Your task to perform on an android device: turn off notifications settings in the gmail app Image 0: 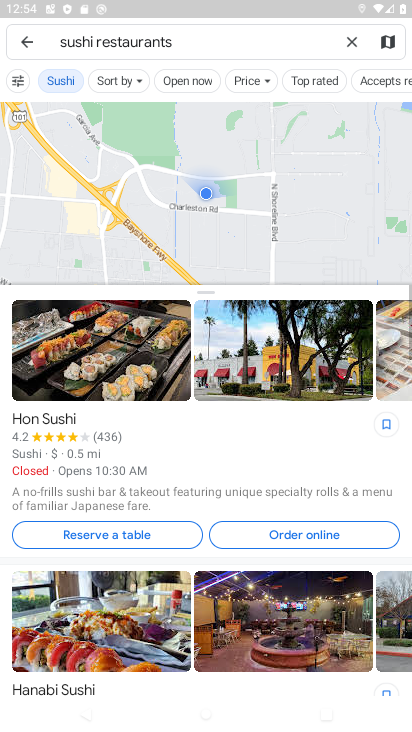
Step 0: press home button
Your task to perform on an android device: turn off notifications settings in the gmail app Image 1: 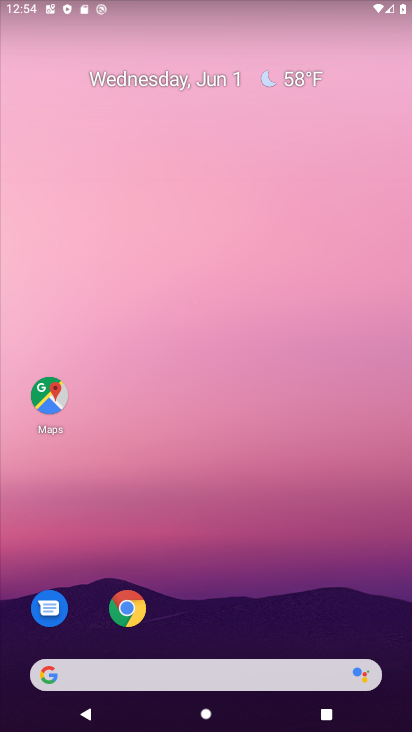
Step 1: drag from (262, 587) to (269, 112)
Your task to perform on an android device: turn off notifications settings in the gmail app Image 2: 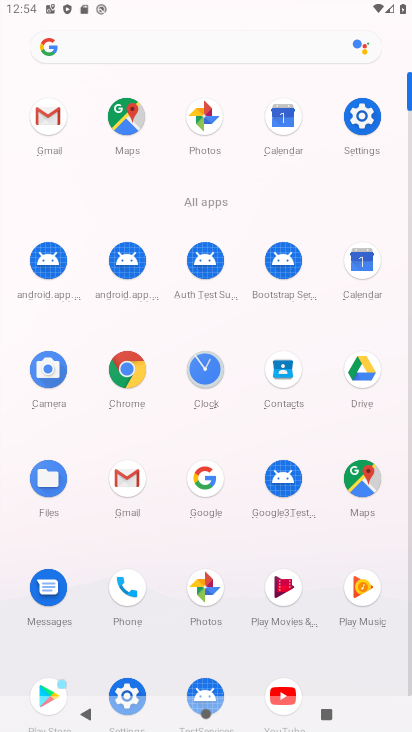
Step 2: click (50, 119)
Your task to perform on an android device: turn off notifications settings in the gmail app Image 3: 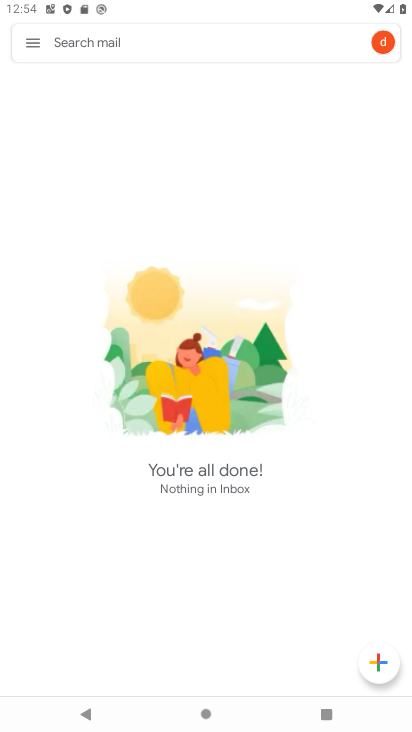
Step 3: click (29, 42)
Your task to perform on an android device: turn off notifications settings in the gmail app Image 4: 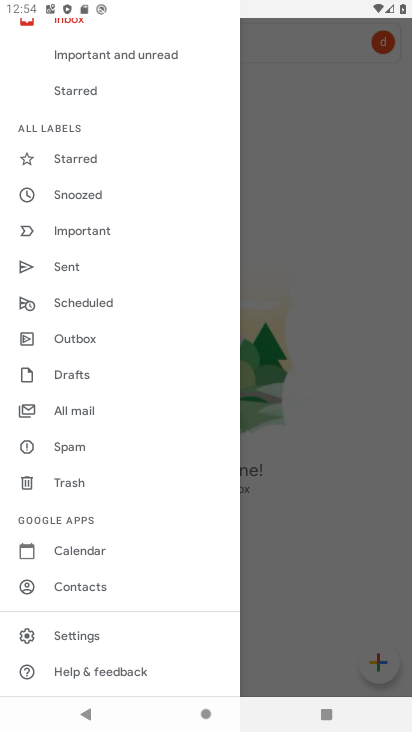
Step 4: click (63, 621)
Your task to perform on an android device: turn off notifications settings in the gmail app Image 5: 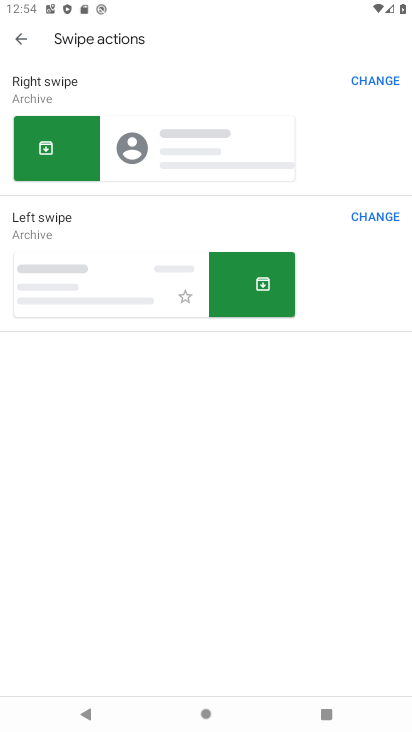
Step 5: click (33, 35)
Your task to perform on an android device: turn off notifications settings in the gmail app Image 6: 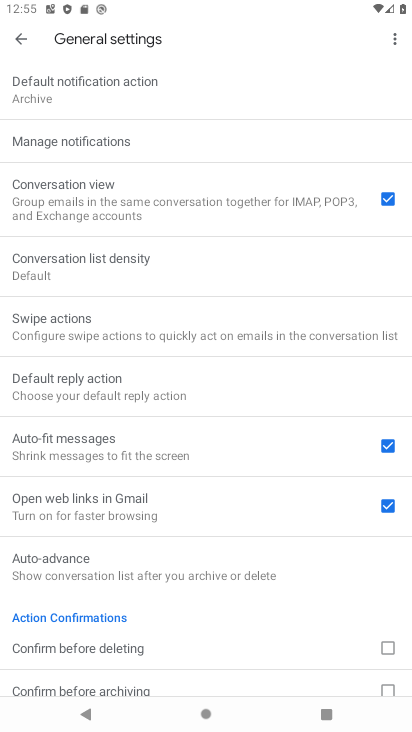
Step 6: click (105, 138)
Your task to perform on an android device: turn off notifications settings in the gmail app Image 7: 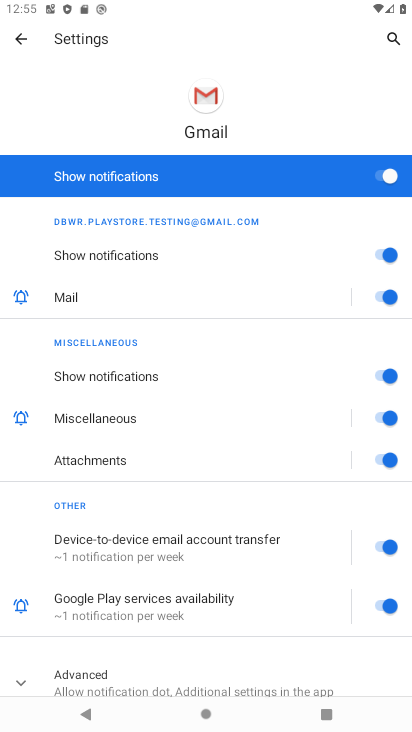
Step 7: click (403, 184)
Your task to perform on an android device: turn off notifications settings in the gmail app Image 8: 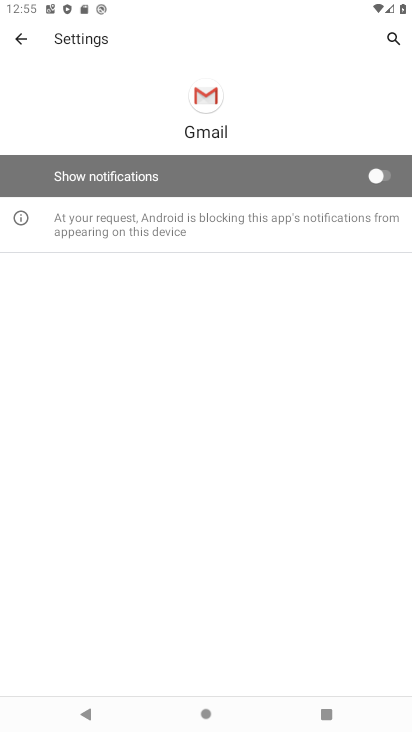
Step 8: task complete